Your task to perform on an android device: turn off smart reply in the gmail app Image 0: 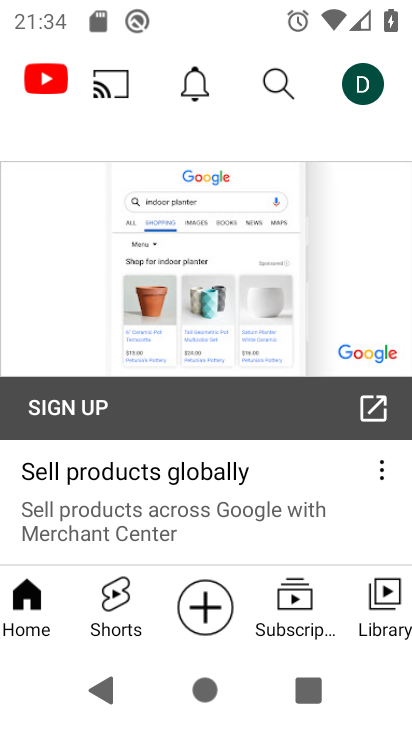
Step 0: press home button
Your task to perform on an android device: turn off smart reply in the gmail app Image 1: 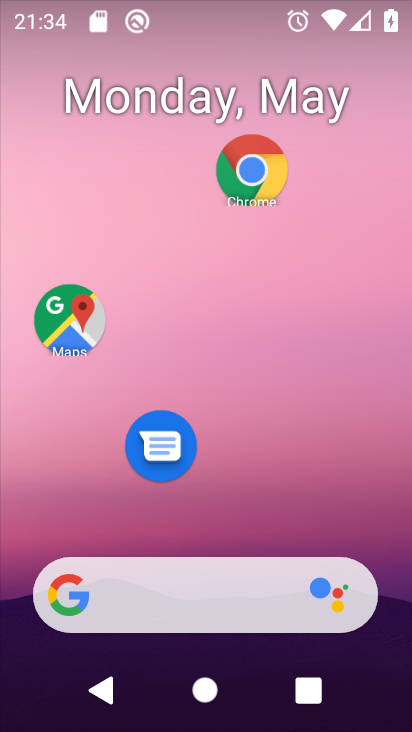
Step 1: drag from (238, 533) to (194, 0)
Your task to perform on an android device: turn off smart reply in the gmail app Image 2: 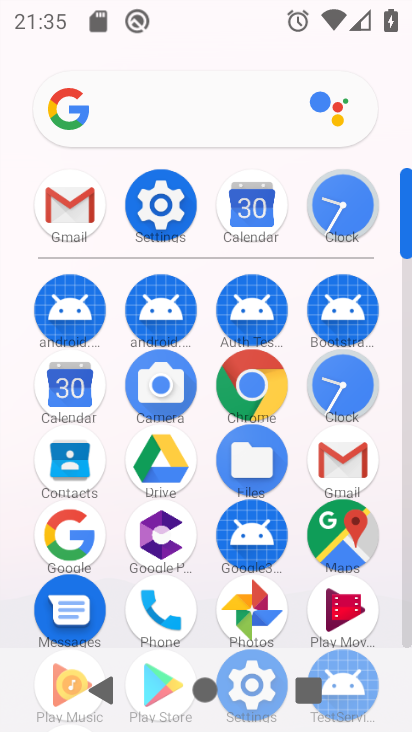
Step 2: click (67, 197)
Your task to perform on an android device: turn off smart reply in the gmail app Image 3: 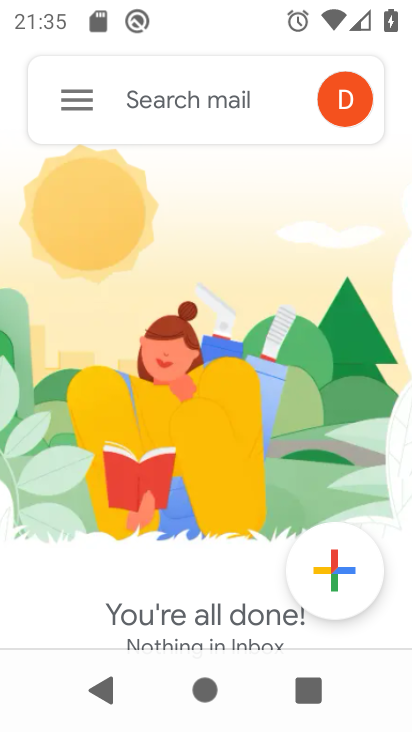
Step 3: click (69, 90)
Your task to perform on an android device: turn off smart reply in the gmail app Image 4: 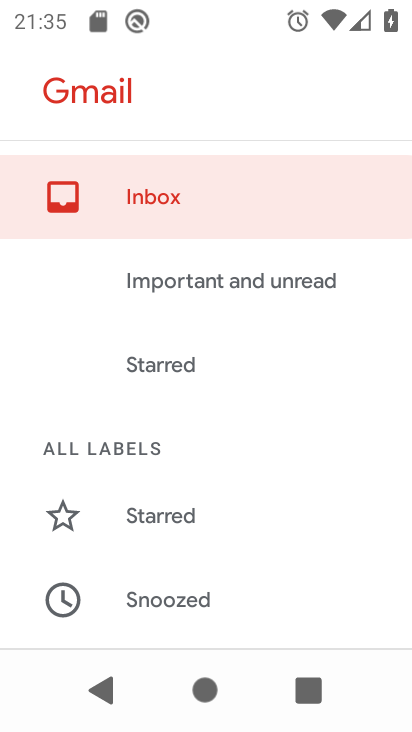
Step 4: drag from (186, 561) to (190, 54)
Your task to perform on an android device: turn off smart reply in the gmail app Image 5: 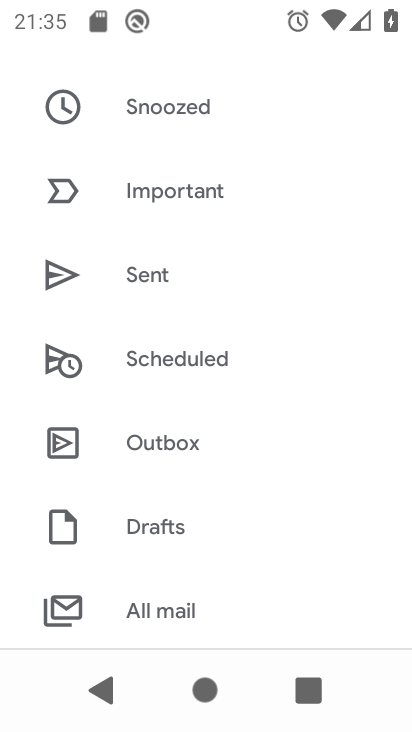
Step 5: drag from (206, 579) to (228, 133)
Your task to perform on an android device: turn off smart reply in the gmail app Image 6: 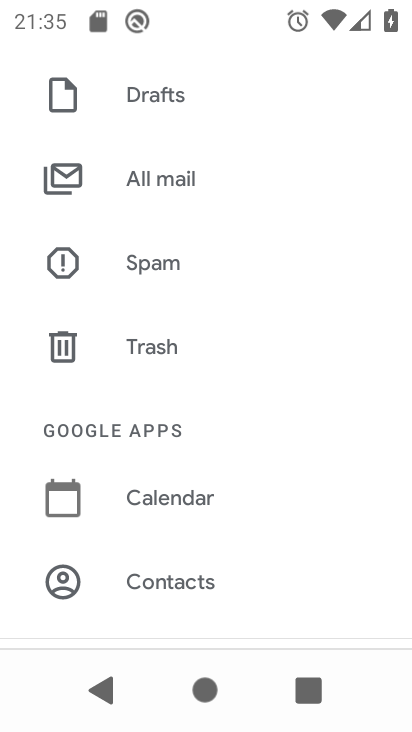
Step 6: drag from (210, 589) to (214, 231)
Your task to perform on an android device: turn off smart reply in the gmail app Image 7: 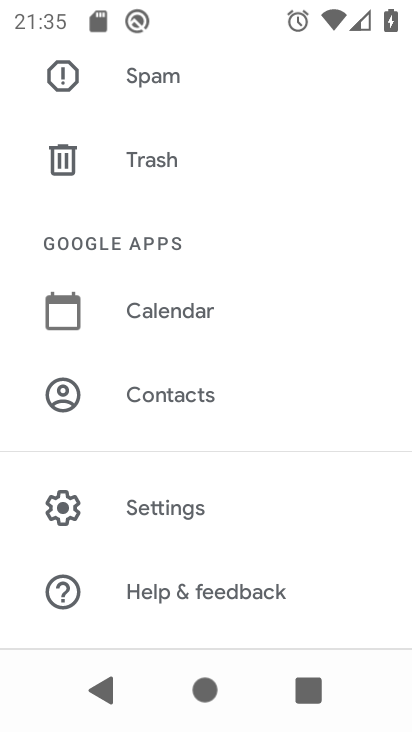
Step 7: click (186, 498)
Your task to perform on an android device: turn off smart reply in the gmail app Image 8: 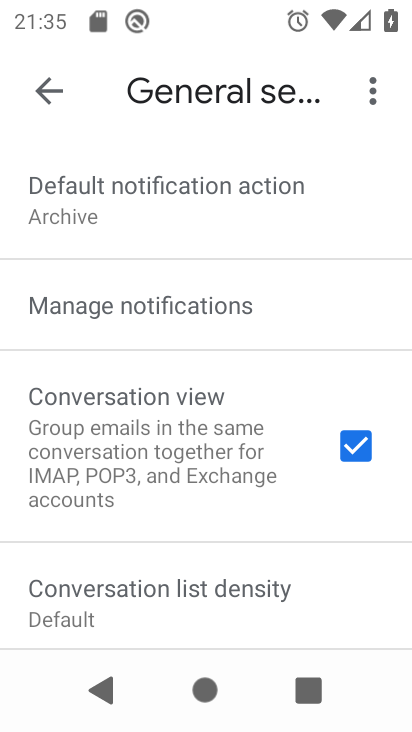
Step 8: drag from (198, 593) to (260, 160)
Your task to perform on an android device: turn off smart reply in the gmail app Image 9: 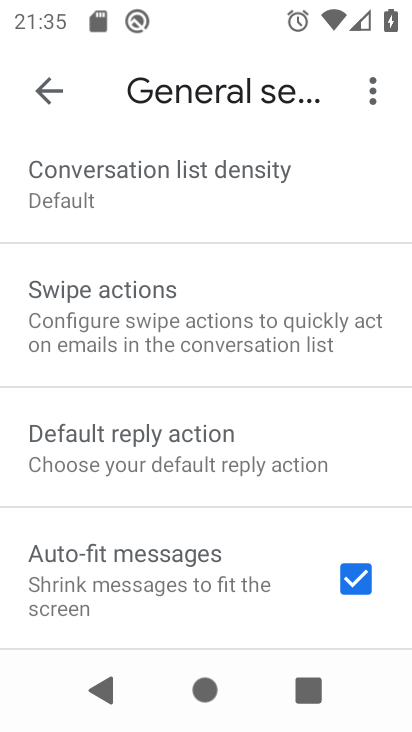
Step 9: drag from (174, 606) to (206, 220)
Your task to perform on an android device: turn off smart reply in the gmail app Image 10: 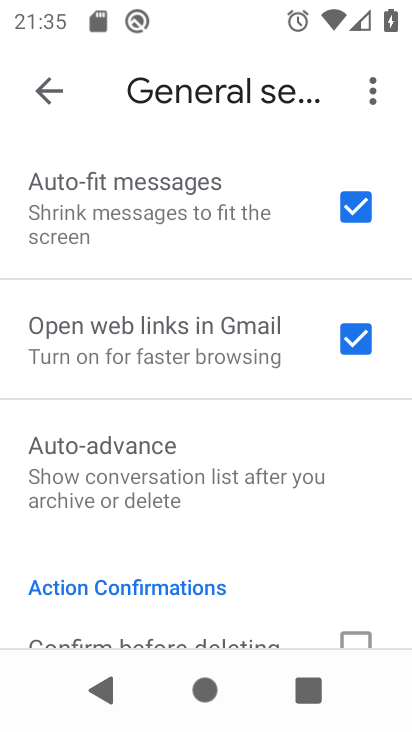
Step 10: click (54, 82)
Your task to perform on an android device: turn off smart reply in the gmail app Image 11: 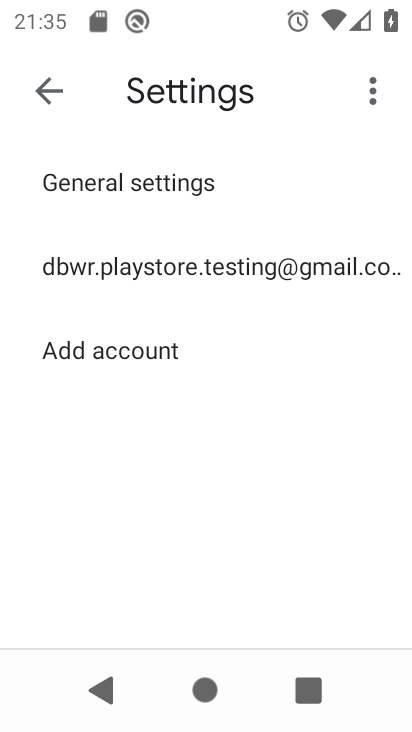
Step 11: click (194, 267)
Your task to perform on an android device: turn off smart reply in the gmail app Image 12: 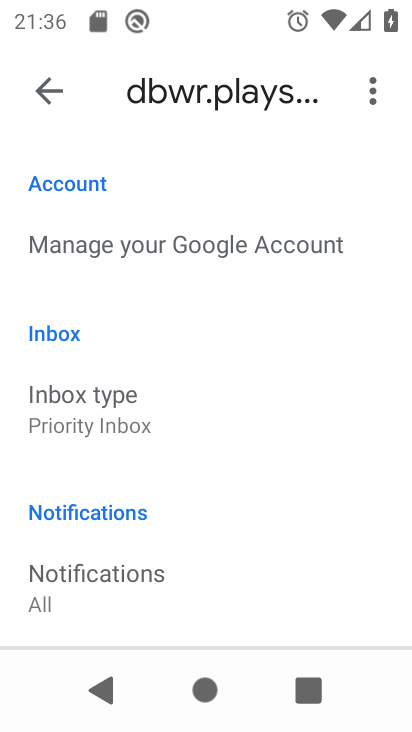
Step 12: drag from (181, 598) to (208, 156)
Your task to perform on an android device: turn off smart reply in the gmail app Image 13: 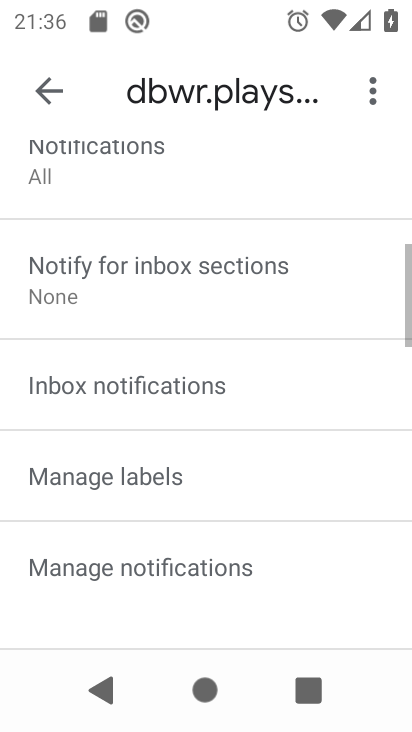
Step 13: drag from (158, 586) to (222, 155)
Your task to perform on an android device: turn off smart reply in the gmail app Image 14: 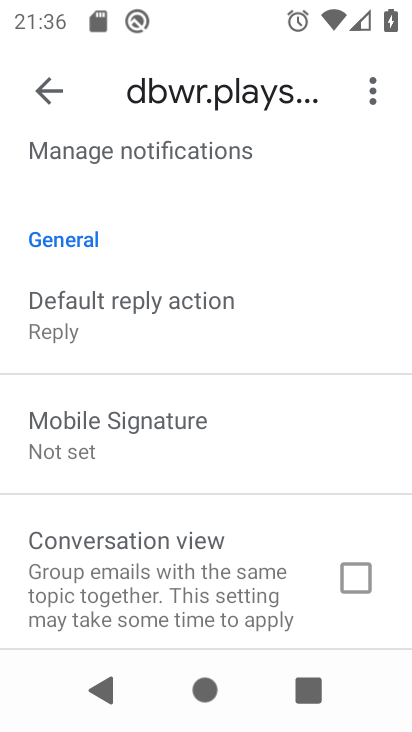
Step 14: drag from (154, 552) to (198, 185)
Your task to perform on an android device: turn off smart reply in the gmail app Image 15: 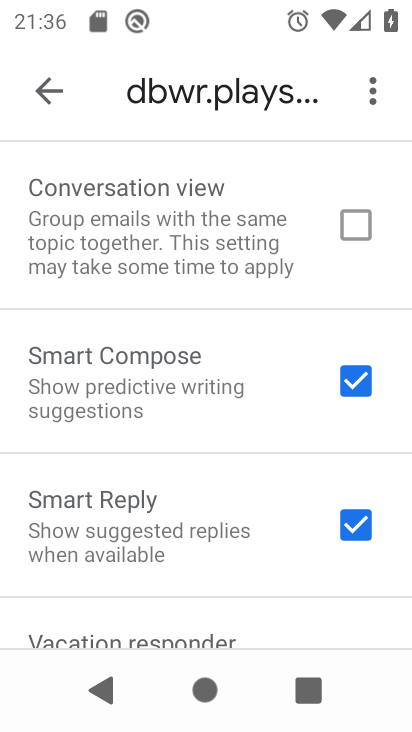
Step 15: click (354, 514)
Your task to perform on an android device: turn off smart reply in the gmail app Image 16: 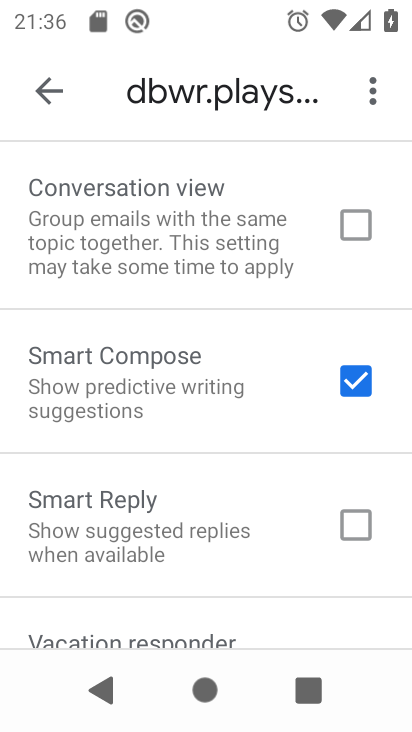
Step 16: task complete